Your task to perform on an android device: What's the weather today? Image 0: 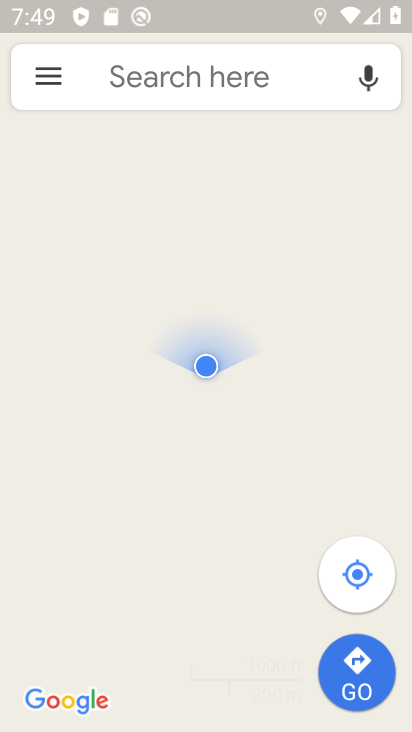
Step 0: press back button
Your task to perform on an android device: What's the weather today? Image 1: 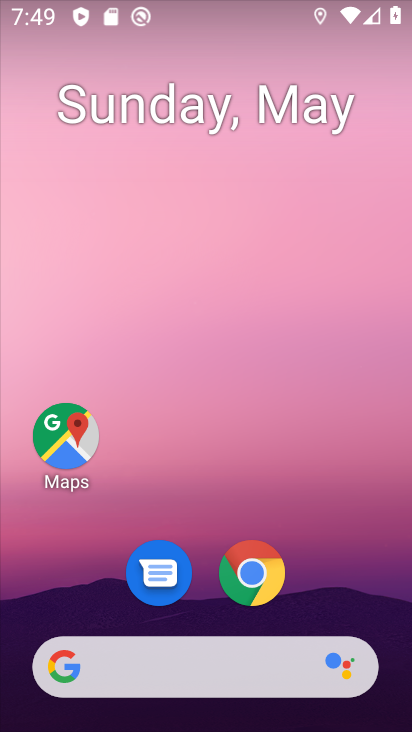
Step 1: drag from (289, 622) to (253, 121)
Your task to perform on an android device: What's the weather today? Image 2: 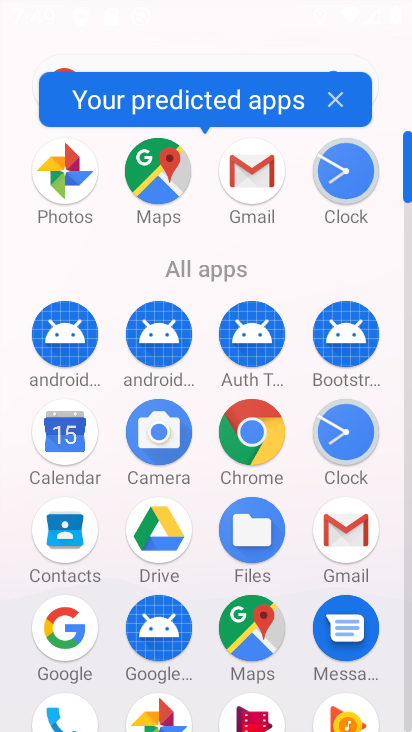
Step 2: click (55, 622)
Your task to perform on an android device: What's the weather today? Image 3: 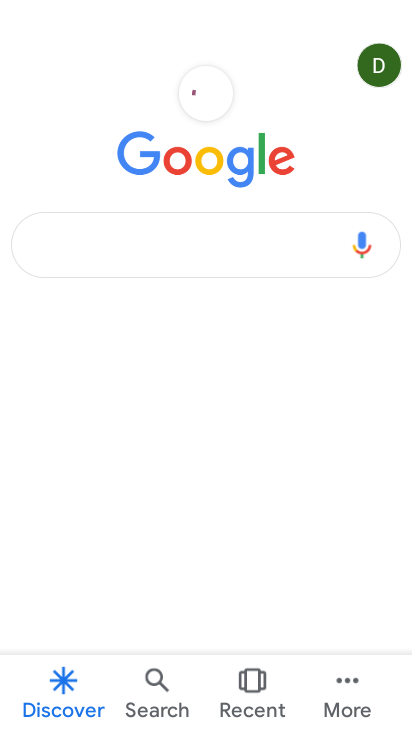
Step 3: click (157, 257)
Your task to perform on an android device: What's the weather today? Image 4: 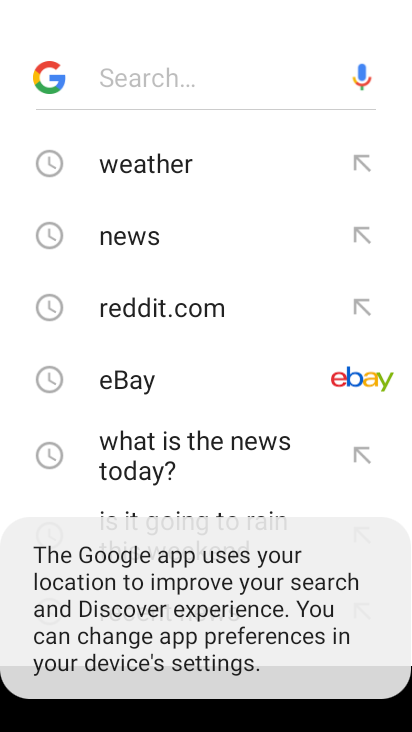
Step 4: click (130, 173)
Your task to perform on an android device: What's the weather today? Image 5: 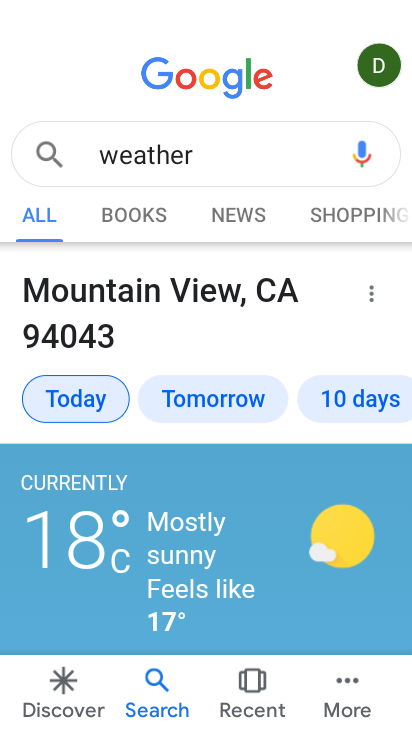
Step 5: task complete